Your task to perform on an android device: Turn off the flashlight Image 0: 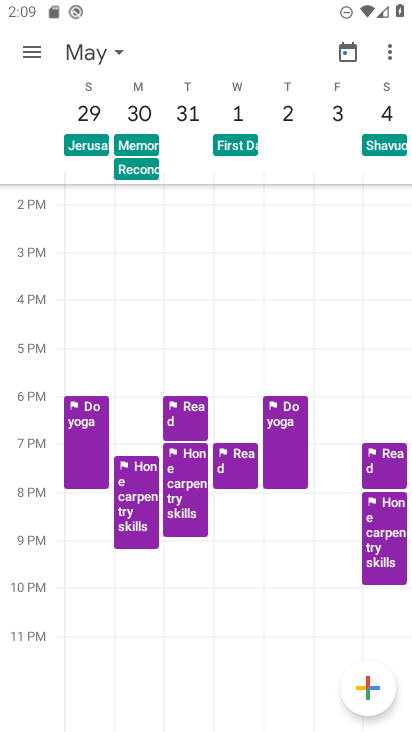
Step 0: press home button
Your task to perform on an android device: Turn off the flashlight Image 1: 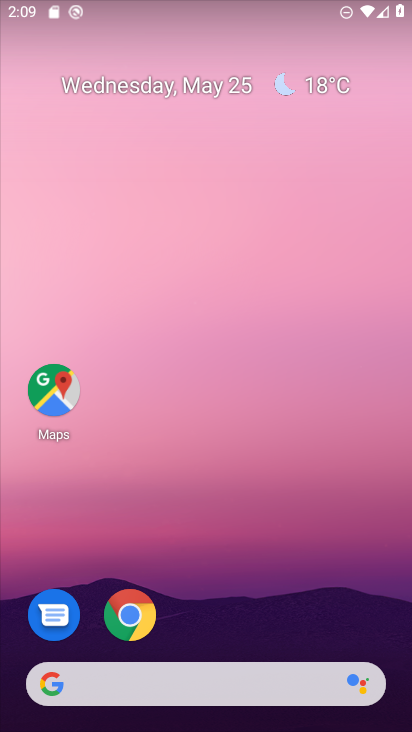
Step 1: drag from (246, 593) to (267, 86)
Your task to perform on an android device: Turn off the flashlight Image 2: 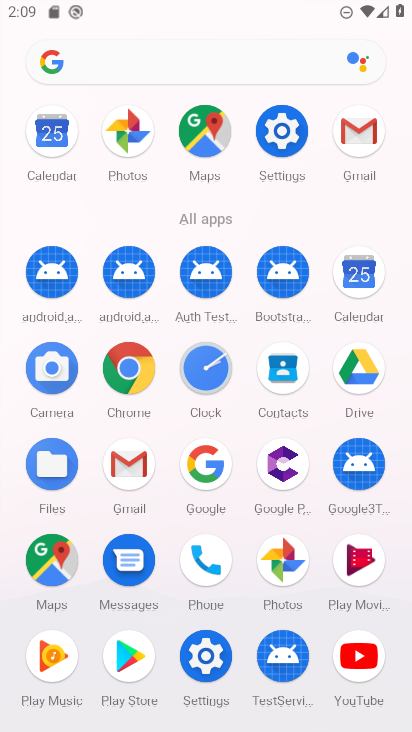
Step 2: click (274, 131)
Your task to perform on an android device: Turn off the flashlight Image 3: 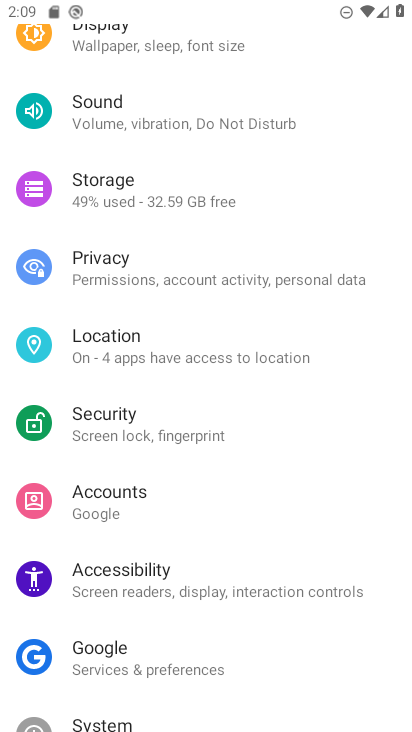
Step 3: drag from (254, 162) to (286, 646)
Your task to perform on an android device: Turn off the flashlight Image 4: 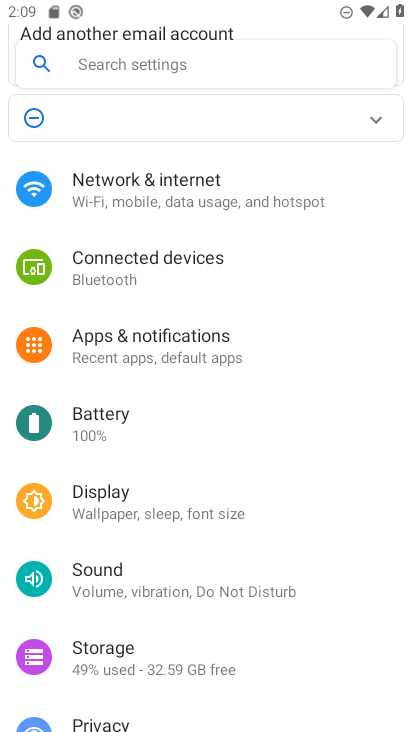
Step 4: drag from (260, 291) to (231, 572)
Your task to perform on an android device: Turn off the flashlight Image 5: 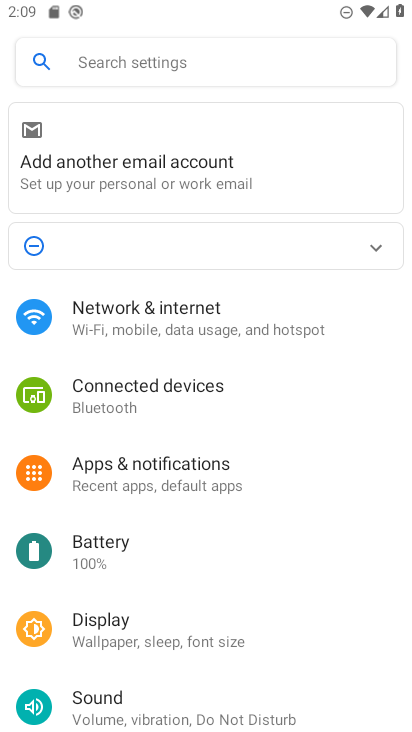
Step 5: click (281, 56)
Your task to perform on an android device: Turn off the flashlight Image 6: 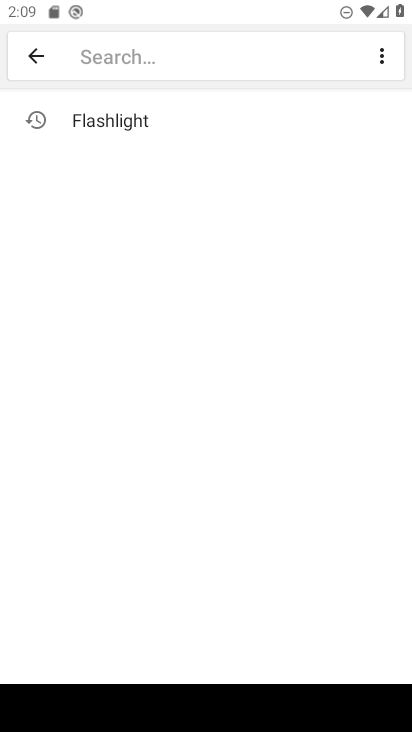
Step 6: click (126, 112)
Your task to perform on an android device: Turn off the flashlight Image 7: 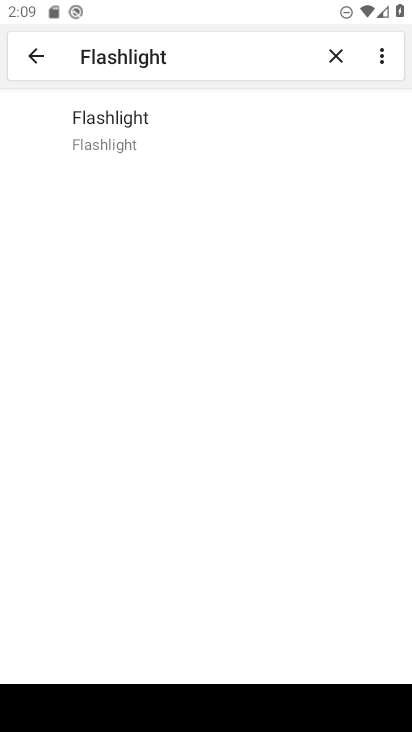
Step 7: click (126, 111)
Your task to perform on an android device: Turn off the flashlight Image 8: 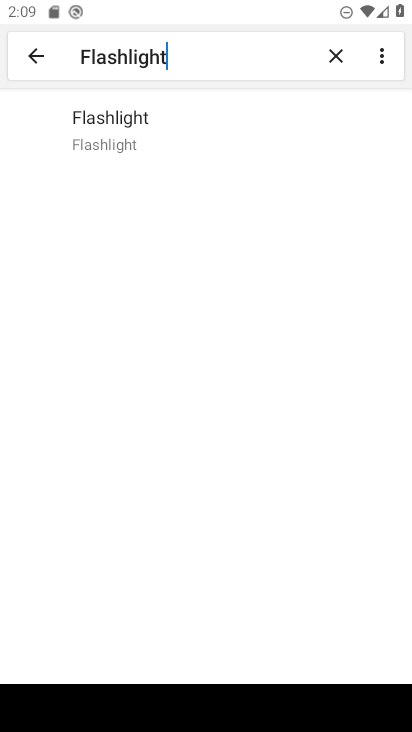
Step 8: task complete